Your task to perform on an android device: read, delete, or share a saved page in the chrome app Image 0: 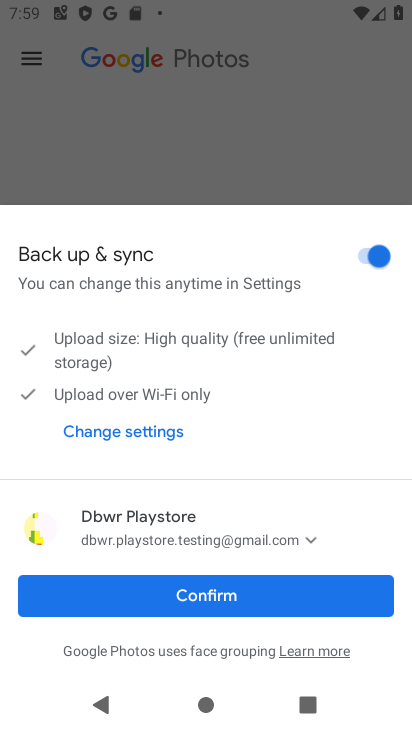
Step 0: press home button
Your task to perform on an android device: read, delete, or share a saved page in the chrome app Image 1: 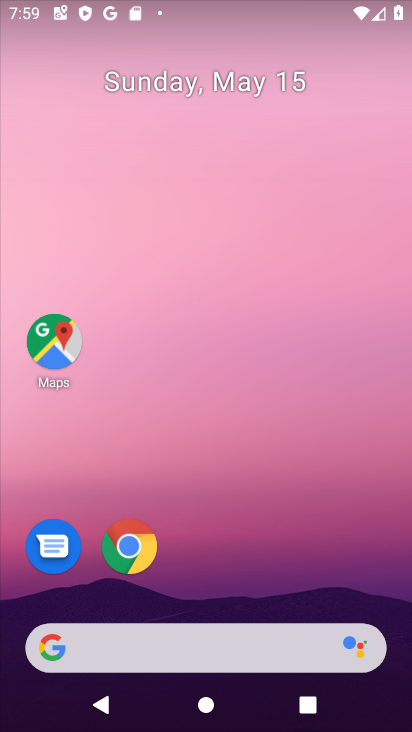
Step 1: click (134, 548)
Your task to perform on an android device: read, delete, or share a saved page in the chrome app Image 2: 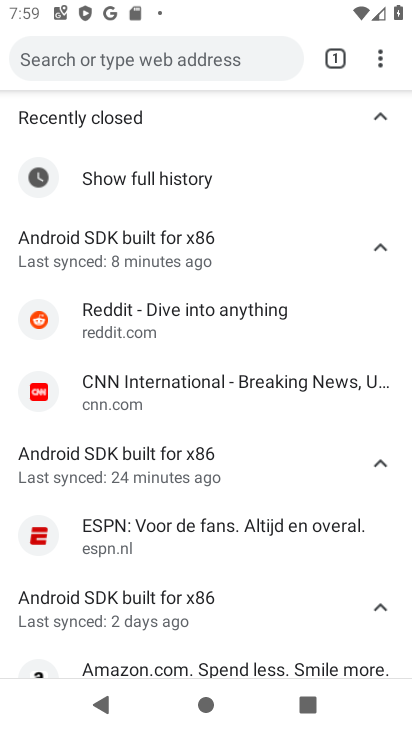
Step 2: click (377, 59)
Your task to perform on an android device: read, delete, or share a saved page in the chrome app Image 3: 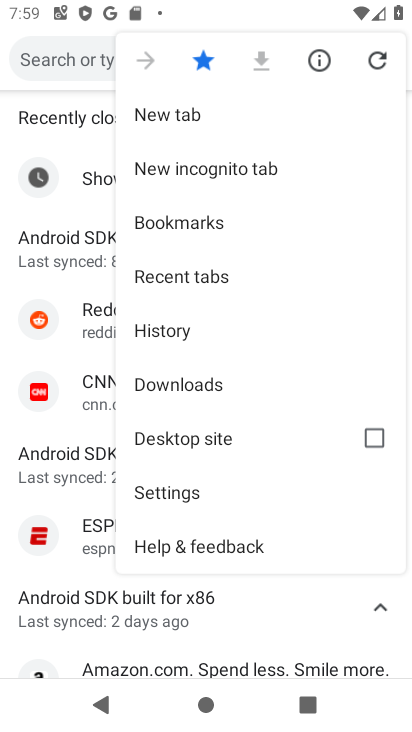
Step 3: click (198, 376)
Your task to perform on an android device: read, delete, or share a saved page in the chrome app Image 4: 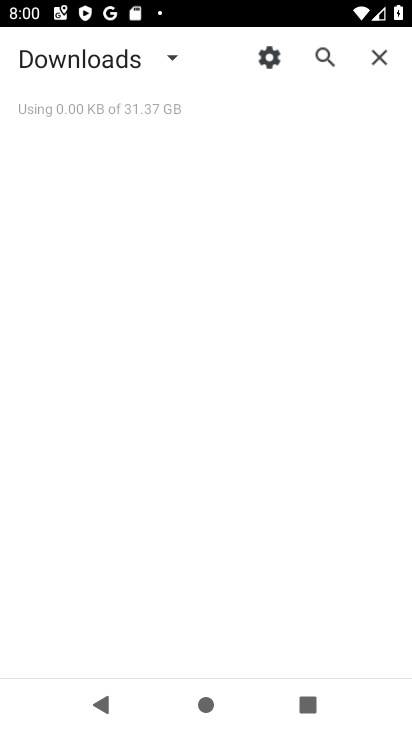
Step 4: task complete